Your task to perform on an android device: Search for sushi restaurants on Maps Image 0: 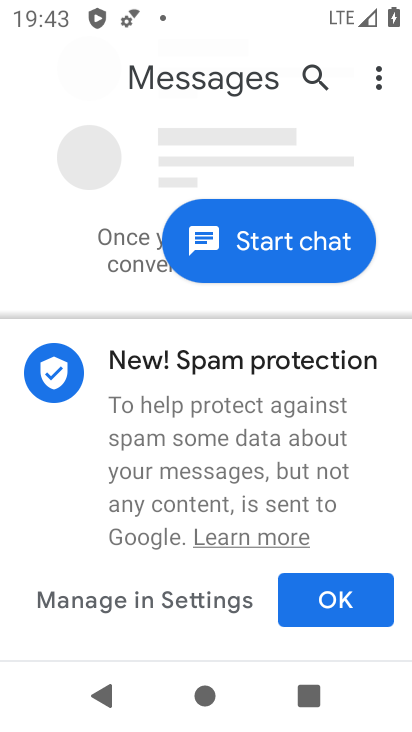
Step 0: press home button
Your task to perform on an android device: Search for sushi restaurants on Maps Image 1: 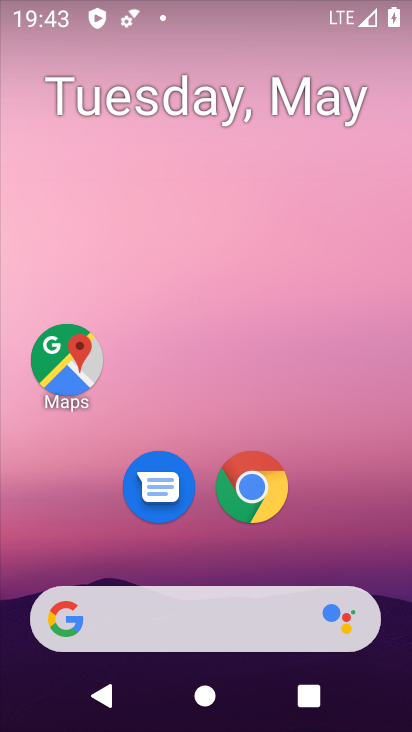
Step 1: click (39, 353)
Your task to perform on an android device: Search for sushi restaurants on Maps Image 2: 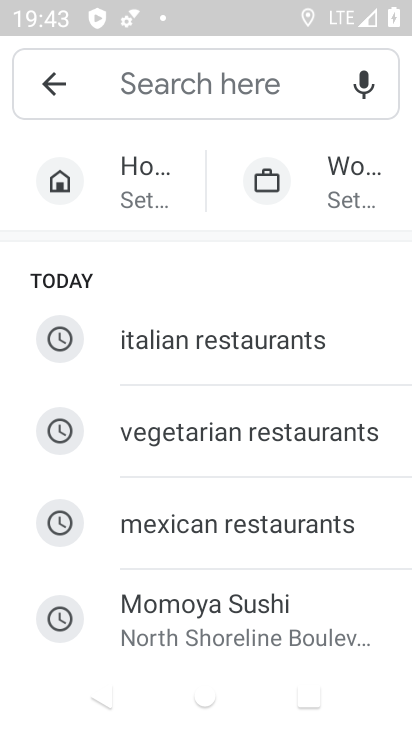
Step 2: click (151, 91)
Your task to perform on an android device: Search for sushi restaurants on Maps Image 3: 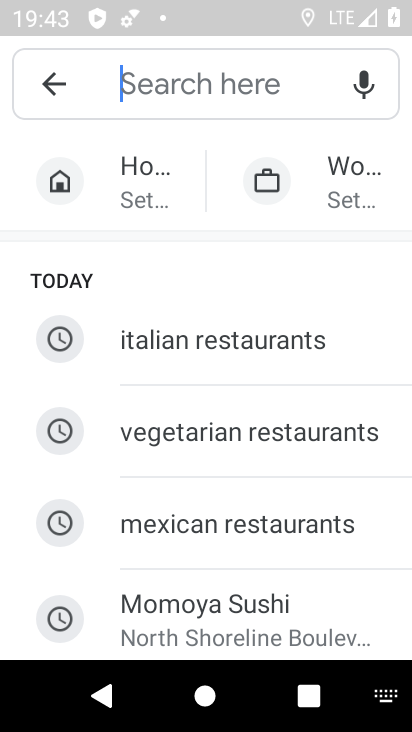
Step 3: type "sushi"
Your task to perform on an android device: Search for sushi restaurants on Maps Image 4: 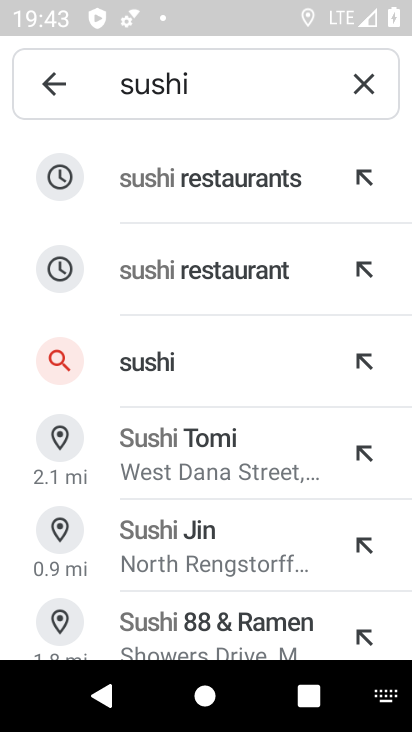
Step 4: click (241, 159)
Your task to perform on an android device: Search for sushi restaurants on Maps Image 5: 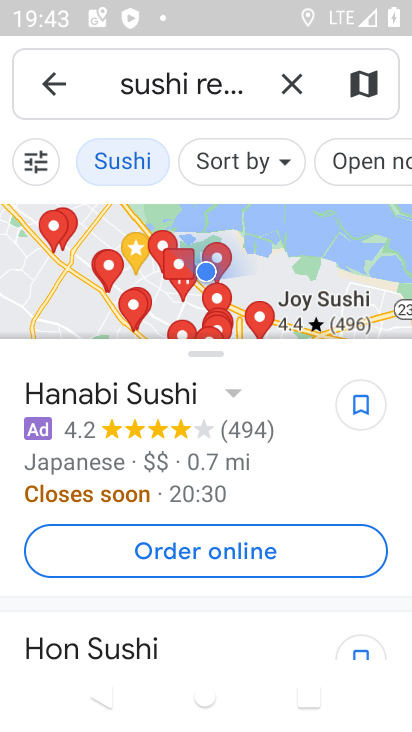
Step 5: task complete